Your task to perform on an android device: Open Google Chrome and click the shortcut for Amazon.com Image 0: 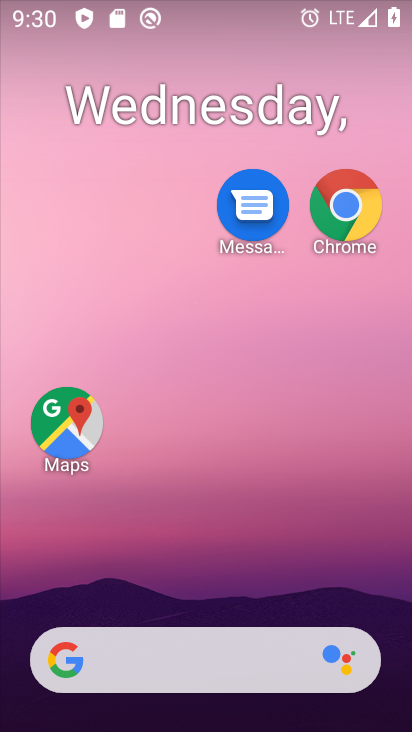
Step 0: click (401, 528)
Your task to perform on an android device: Open Google Chrome and click the shortcut for Amazon.com Image 1: 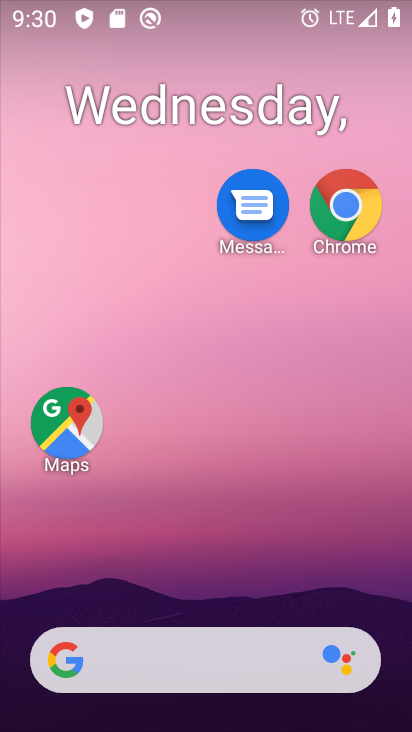
Step 1: drag from (220, 557) to (257, 84)
Your task to perform on an android device: Open Google Chrome and click the shortcut for Amazon.com Image 2: 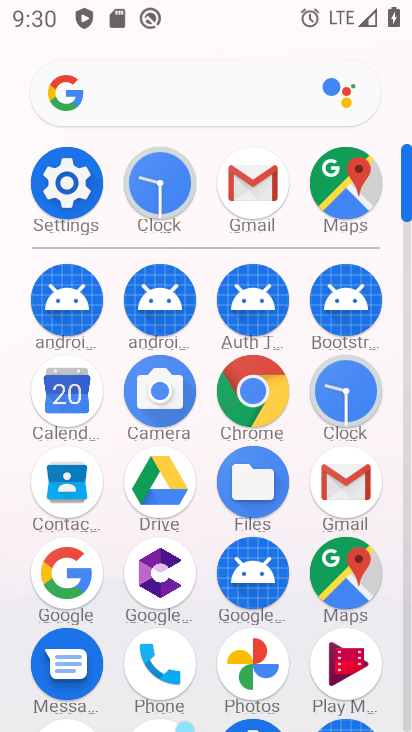
Step 2: click (246, 403)
Your task to perform on an android device: Open Google Chrome and click the shortcut for Amazon.com Image 3: 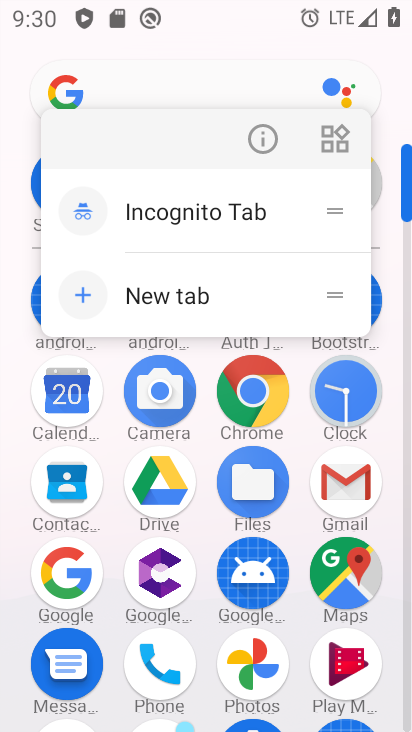
Step 3: click (278, 134)
Your task to perform on an android device: Open Google Chrome and click the shortcut for Amazon.com Image 4: 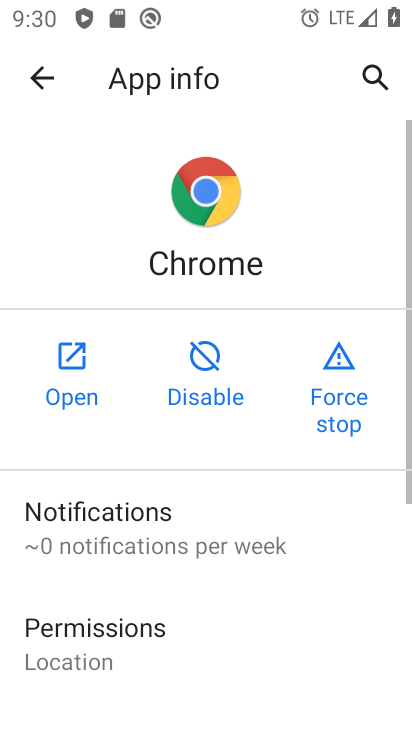
Step 4: click (51, 377)
Your task to perform on an android device: Open Google Chrome and click the shortcut for Amazon.com Image 5: 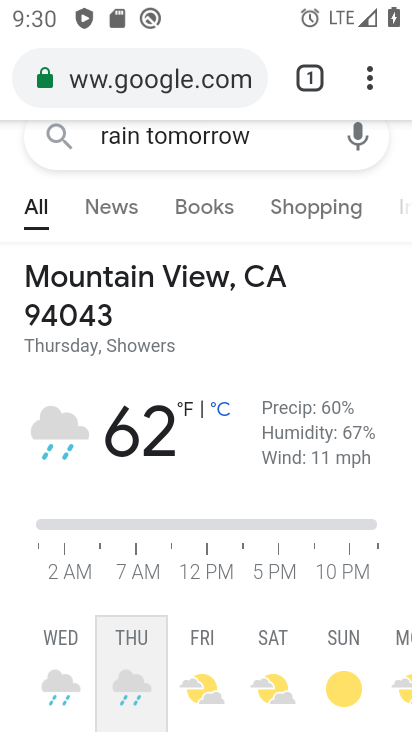
Step 5: drag from (237, 656) to (283, 198)
Your task to perform on an android device: Open Google Chrome and click the shortcut for Amazon.com Image 6: 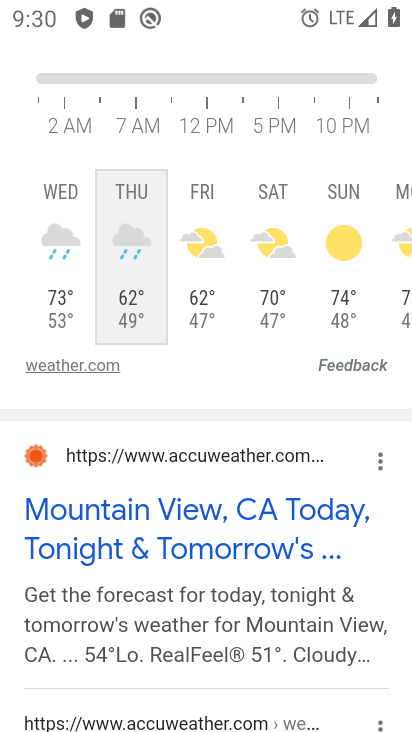
Step 6: drag from (239, 145) to (394, 161)
Your task to perform on an android device: Open Google Chrome and click the shortcut for Amazon.com Image 7: 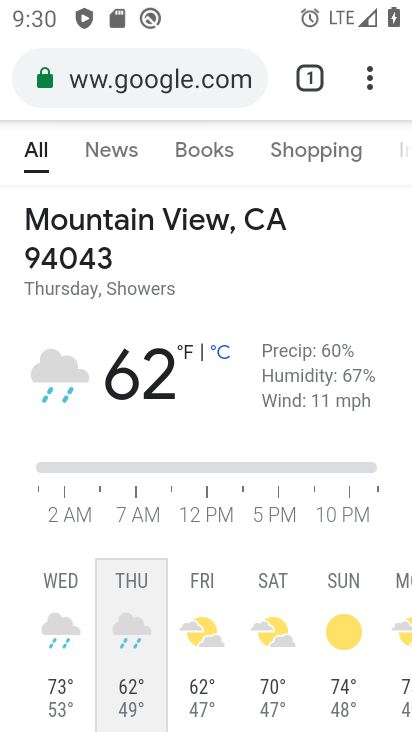
Step 7: drag from (258, 184) to (335, 646)
Your task to perform on an android device: Open Google Chrome and click the shortcut for Amazon.com Image 8: 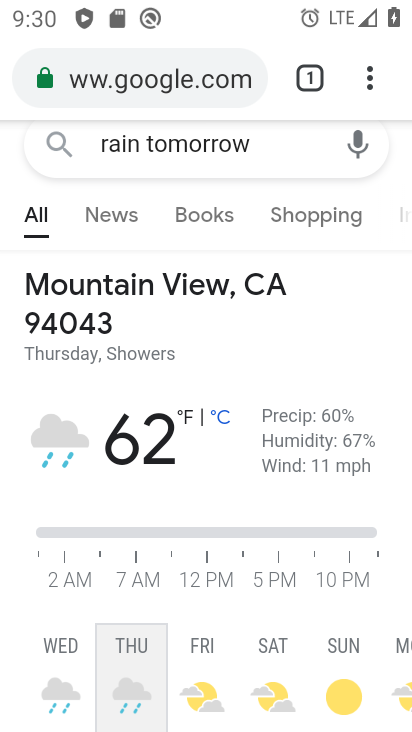
Step 8: click (309, 86)
Your task to perform on an android device: Open Google Chrome and click the shortcut for Amazon.com Image 9: 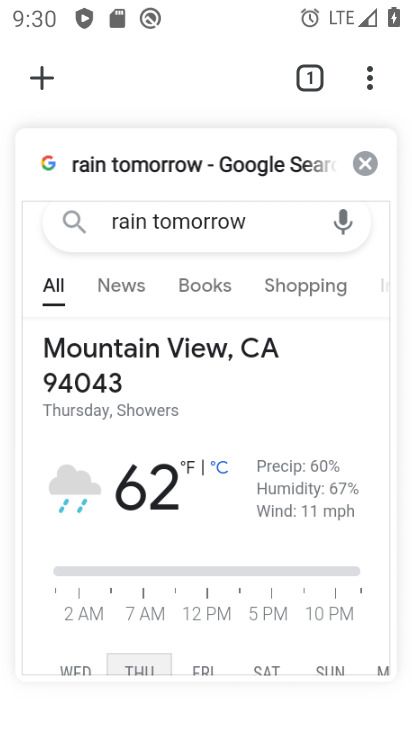
Step 9: click (366, 169)
Your task to perform on an android device: Open Google Chrome and click the shortcut for Amazon.com Image 10: 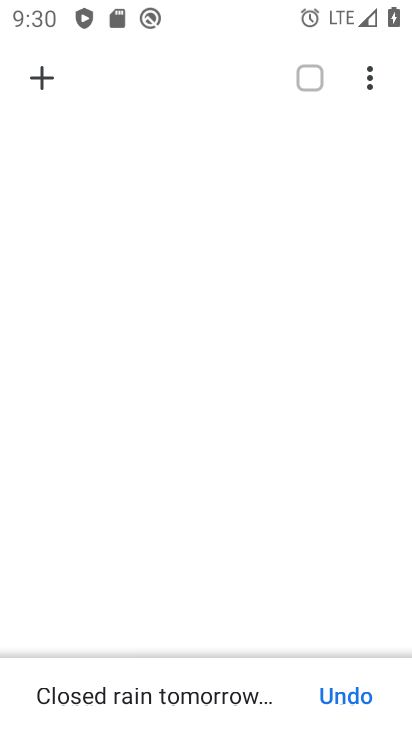
Step 10: click (29, 71)
Your task to perform on an android device: Open Google Chrome and click the shortcut for Amazon.com Image 11: 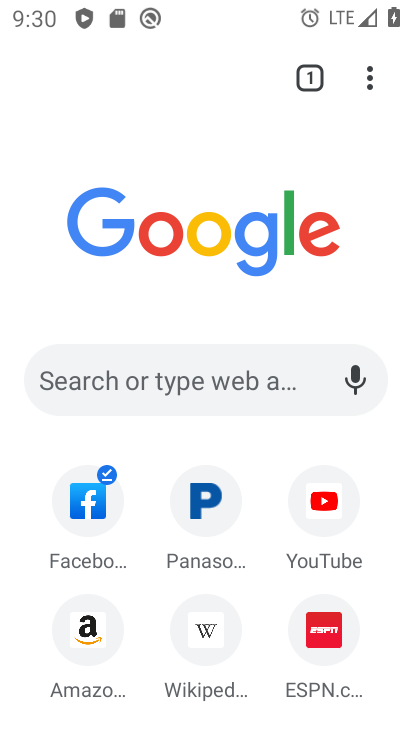
Step 11: click (116, 622)
Your task to perform on an android device: Open Google Chrome and click the shortcut for Amazon.com Image 12: 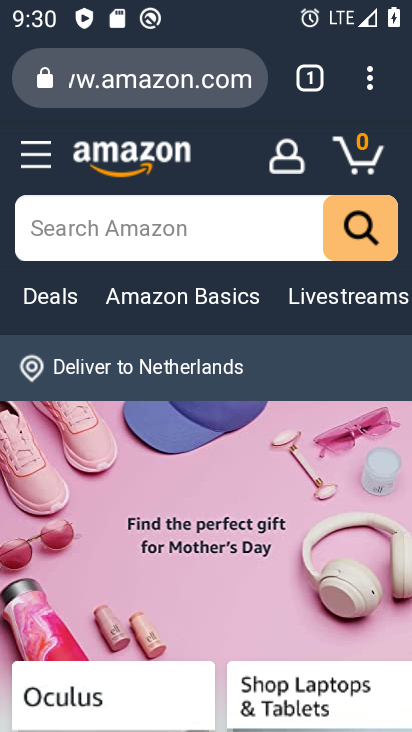
Step 12: task complete